Your task to perform on an android device: see sites visited before in the chrome app Image 0: 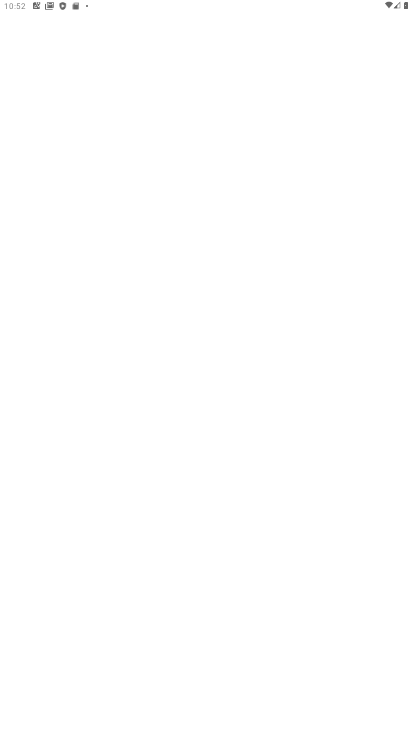
Step 0: press home button
Your task to perform on an android device: see sites visited before in the chrome app Image 1: 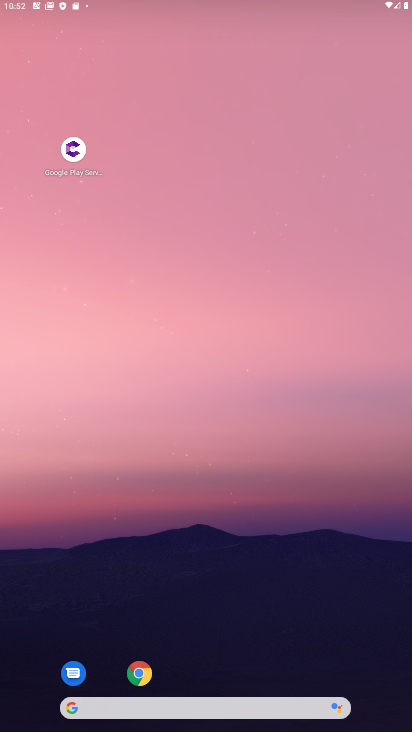
Step 1: click (147, 672)
Your task to perform on an android device: see sites visited before in the chrome app Image 2: 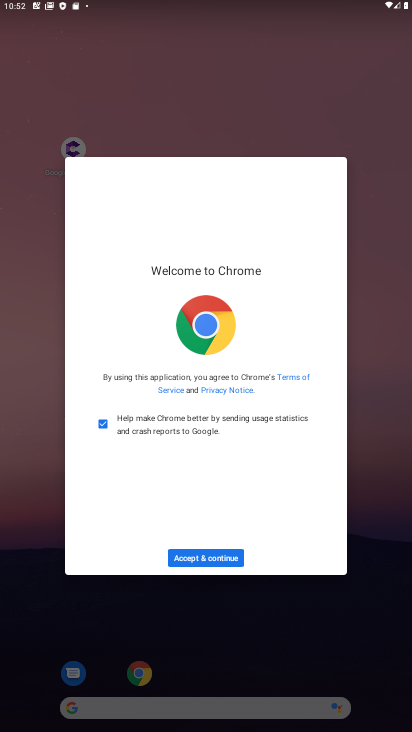
Step 2: click (195, 553)
Your task to perform on an android device: see sites visited before in the chrome app Image 3: 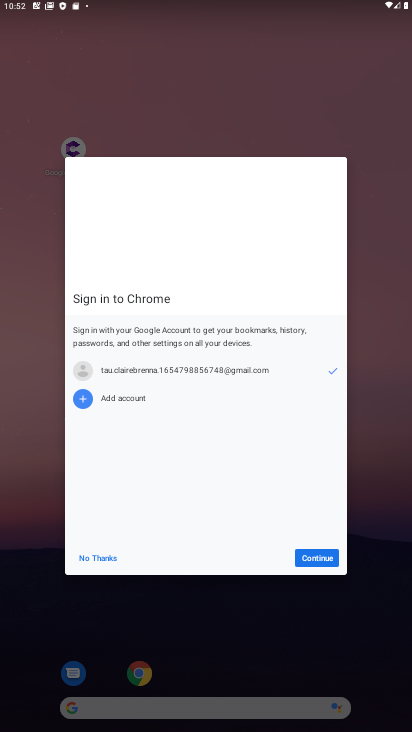
Step 3: click (195, 553)
Your task to perform on an android device: see sites visited before in the chrome app Image 4: 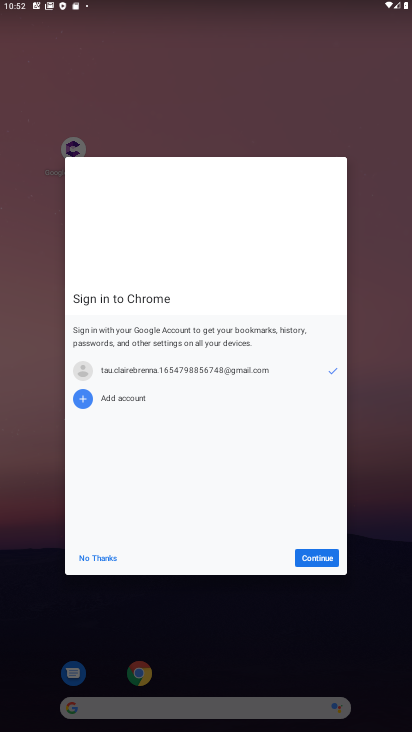
Step 4: click (298, 551)
Your task to perform on an android device: see sites visited before in the chrome app Image 5: 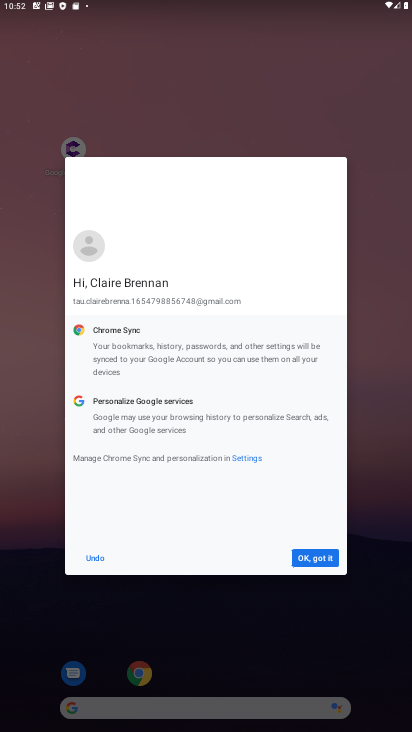
Step 5: click (302, 551)
Your task to perform on an android device: see sites visited before in the chrome app Image 6: 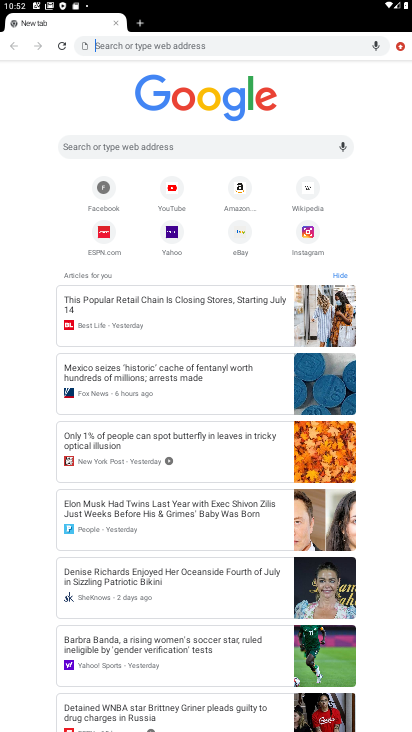
Step 6: click (399, 43)
Your task to perform on an android device: see sites visited before in the chrome app Image 7: 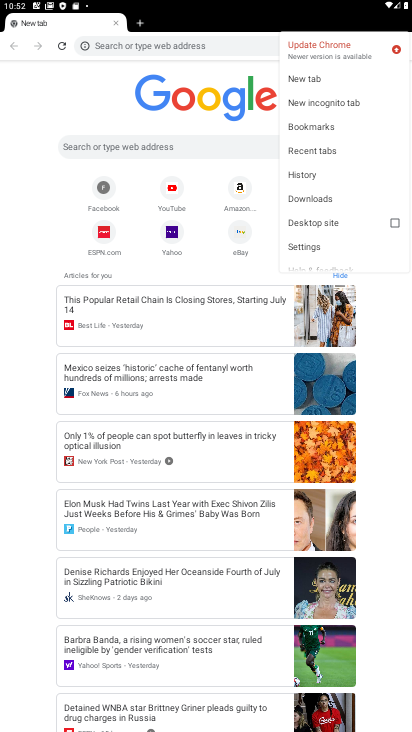
Step 7: click (321, 147)
Your task to perform on an android device: see sites visited before in the chrome app Image 8: 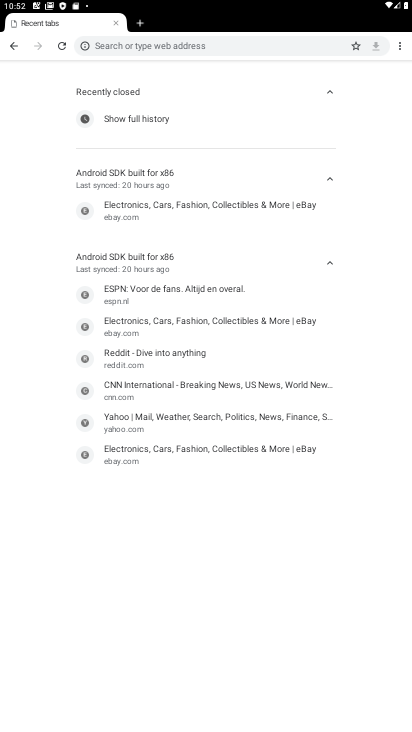
Step 8: task complete